Your task to perform on an android device: Open location settings Image 0: 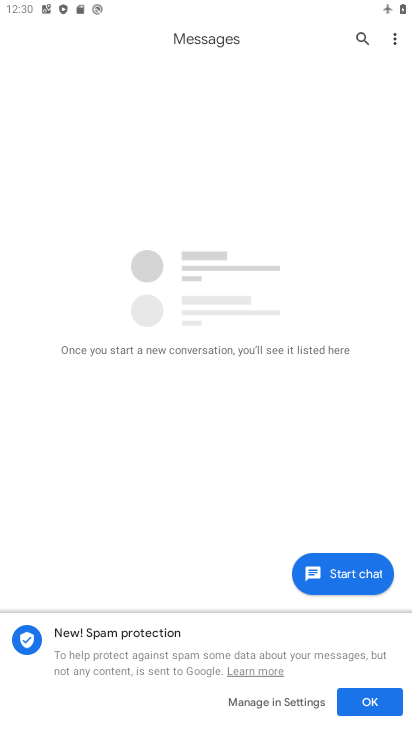
Step 0: press home button
Your task to perform on an android device: Open location settings Image 1: 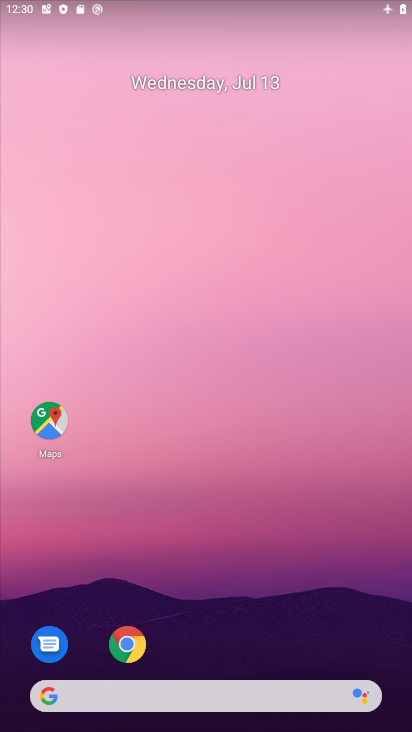
Step 1: drag from (241, 599) to (243, 133)
Your task to perform on an android device: Open location settings Image 2: 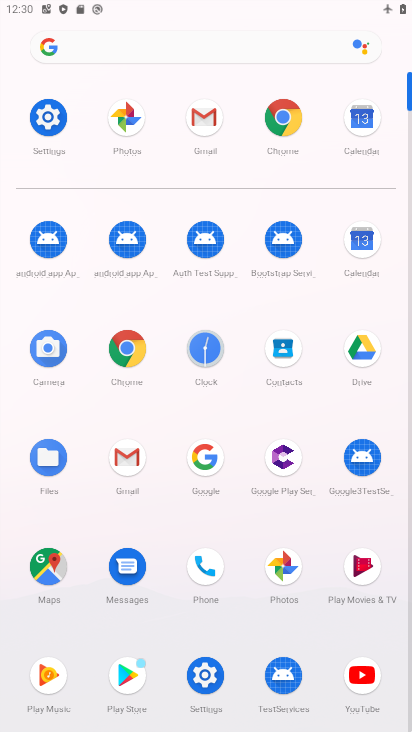
Step 2: click (49, 120)
Your task to perform on an android device: Open location settings Image 3: 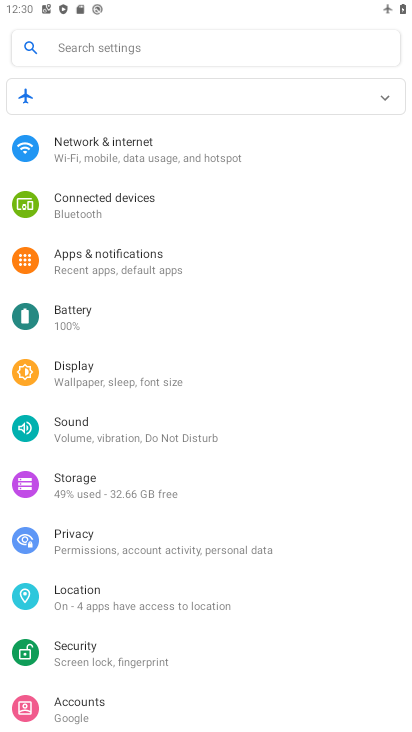
Step 3: click (156, 603)
Your task to perform on an android device: Open location settings Image 4: 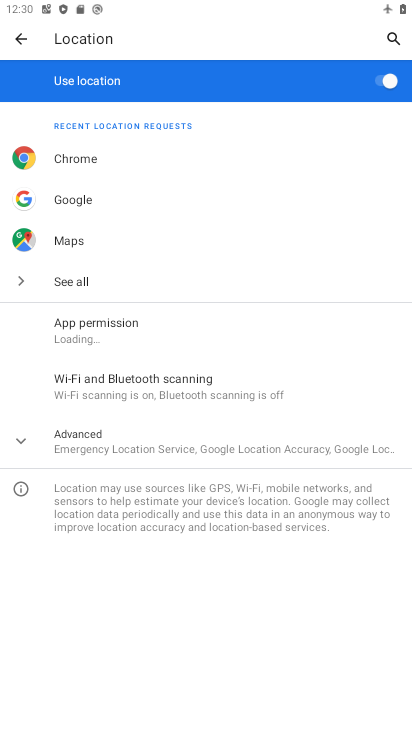
Step 4: task complete